Your task to perform on an android device: delete the emails in spam in the gmail app Image 0: 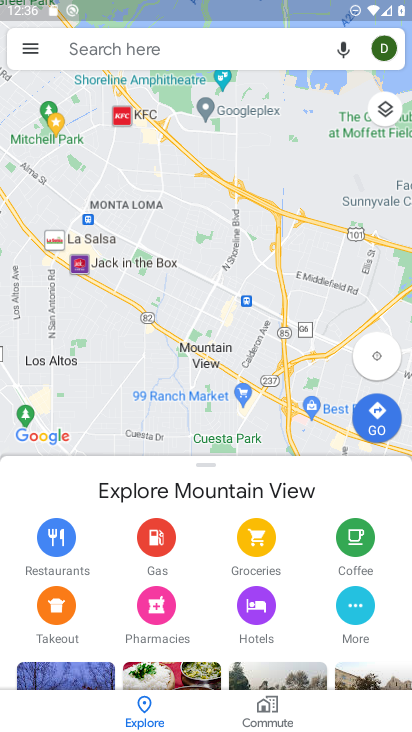
Step 0: press home button
Your task to perform on an android device: delete the emails in spam in the gmail app Image 1: 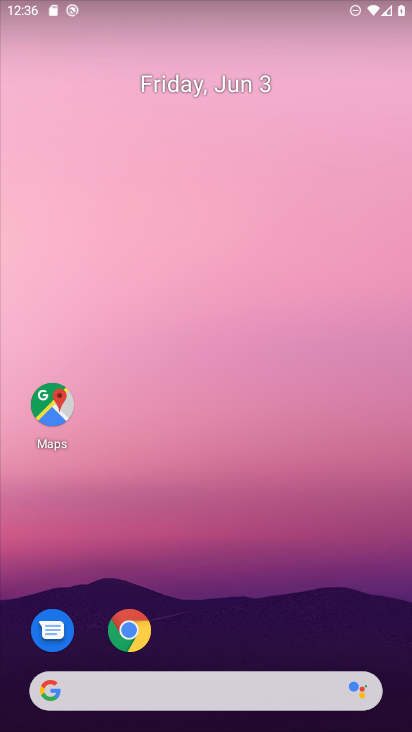
Step 1: drag from (251, 633) to (201, 288)
Your task to perform on an android device: delete the emails in spam in the gmail app Image 2: 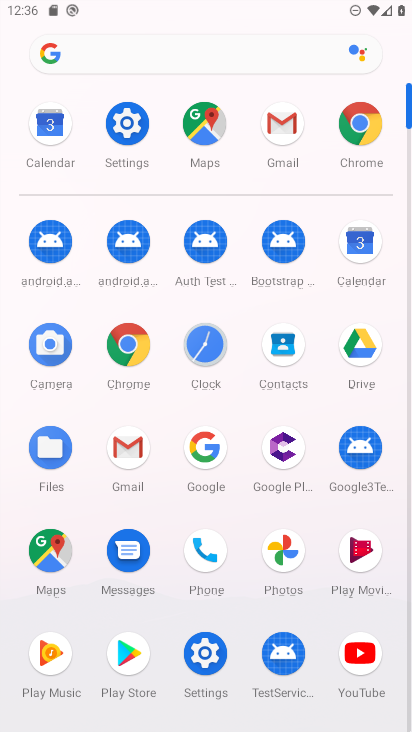
Step 2: click (272, 130)
Your task to perform on an android device: delete the emails in spam in the gmail app Image 3: 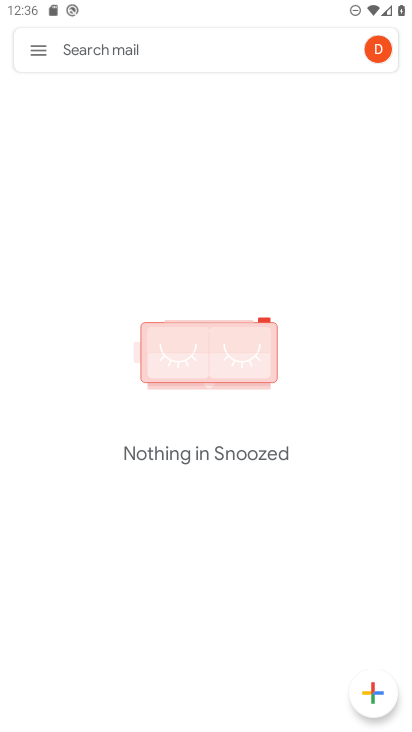
Step 3: click (38, 40)
Your task to perform on an android device: delete the emails in spam in the gmail app Image 4: 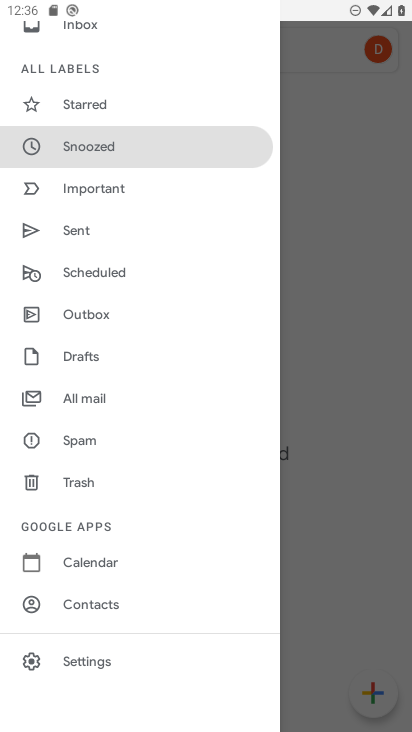
Step 4: drag from (109, 106) to (127, 445)
Your task to perform on an android device: delete the emails in spam in the gmail app Image 5: 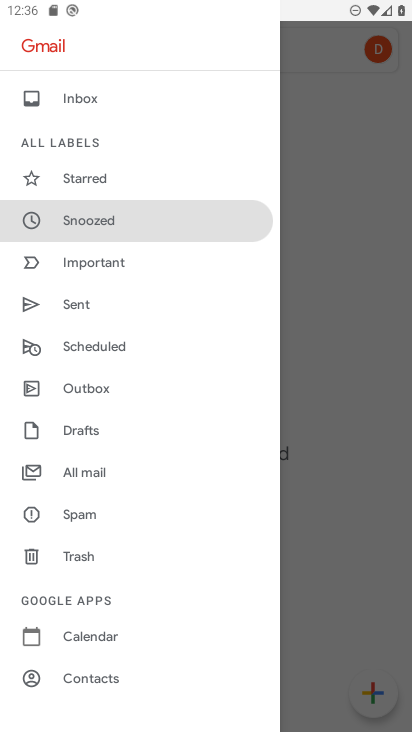
Step 5: click (87, 114)
Your task to perform on an android device: delete the emails in spam in the gmail app Image 6: 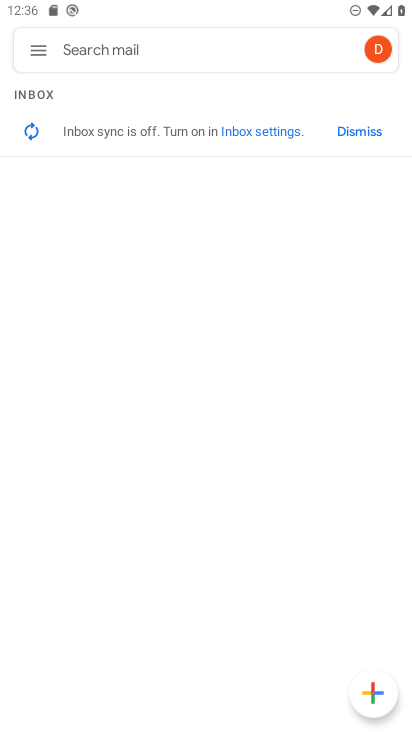
Step 6: click (31, 52)
Your task to perform on an android device: delete the emails in spam in the gmail app Image 7: 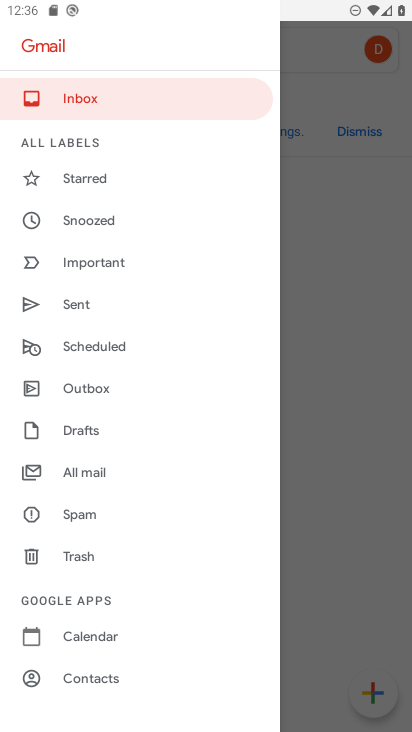
Step 7: click (111, 515)
Your task to perform on an android device: delete the emails in spam in the gmail app Image 8: 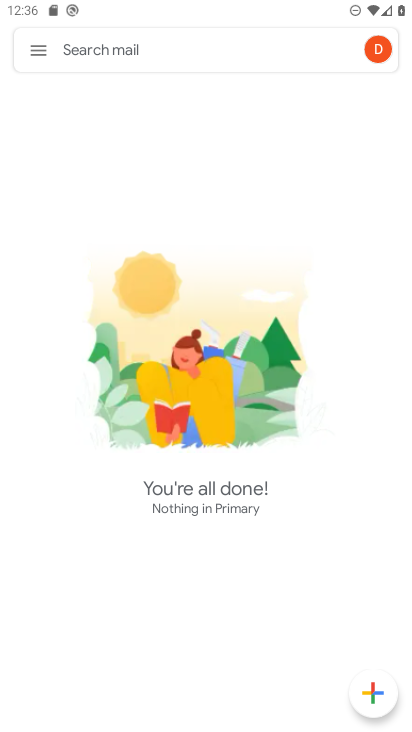
Step 8: click (30, 44)
Your task to perform on an android device: delete the emails in spam in the gmail app Image 9: 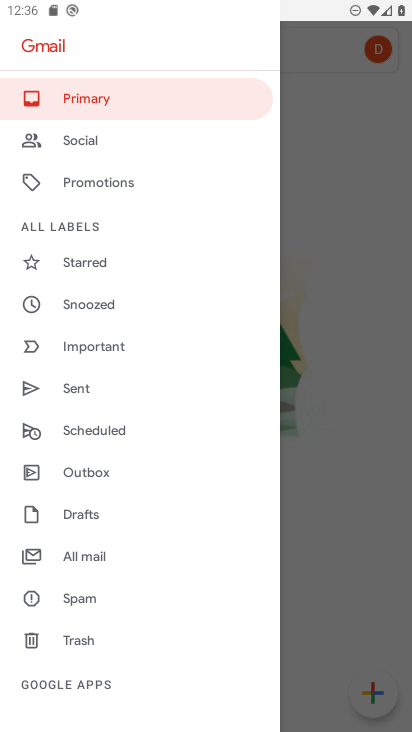
Step 9: click (118, 588)
Your task to perform on an android device: delete the emails in spam in the gmail app Image 10: 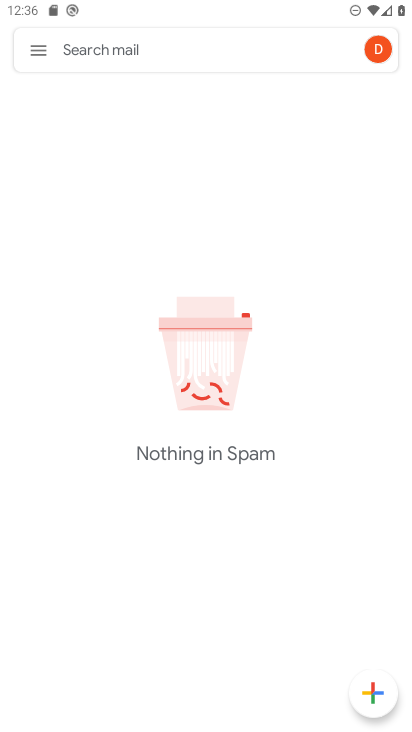
Step 10: task complete